Your task to perform on an android device: open app "DuckDuckGo Privacy Browser" Image 0: 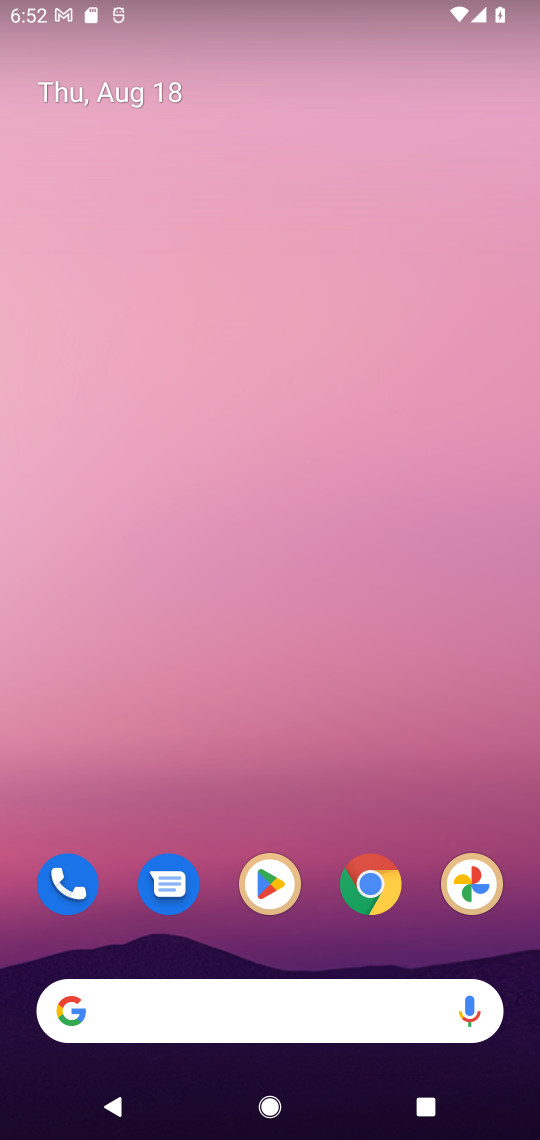
Step 0: drag from (202, 995) to (324, 164)
Your task to perform on an android device: open app "DuckDuckGo Privacy Browser" Image 1: 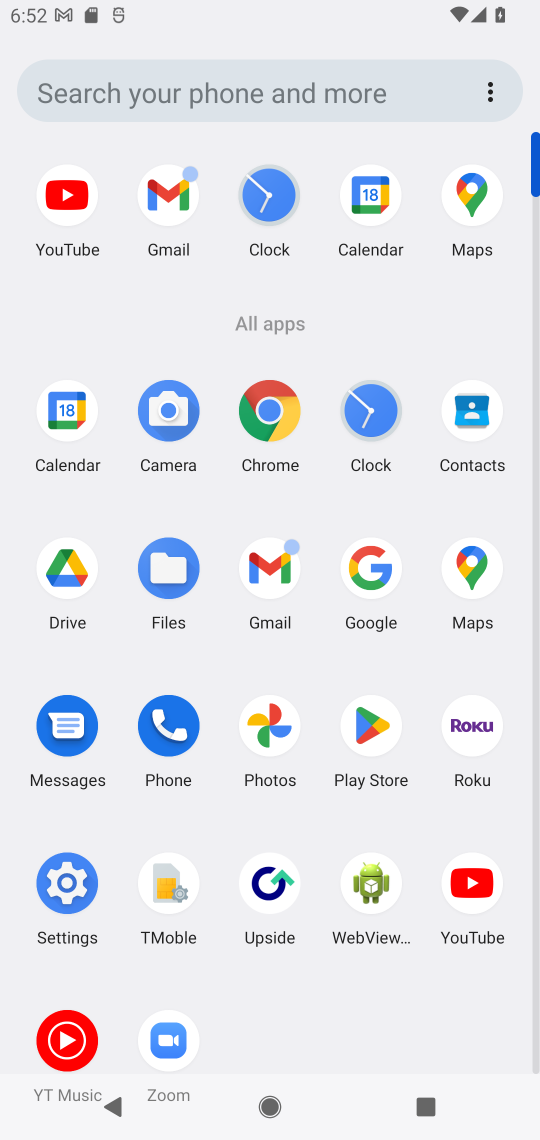
Step 1: click (364, 726)
Your task to perform on an android device: open app "DuckDuckGo Privacy Browser" Image 2: 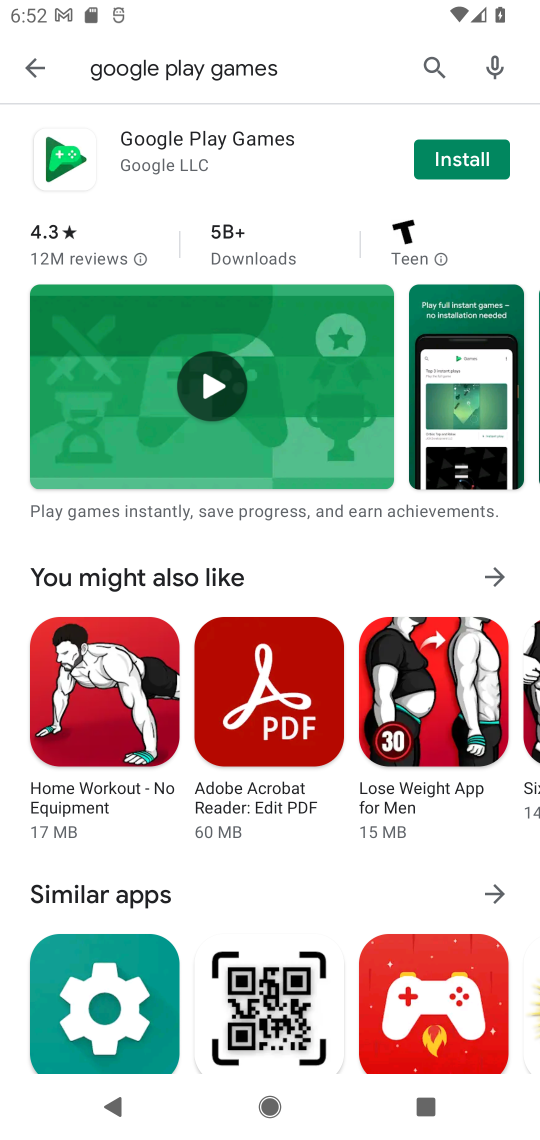
Step 2: press back button
Your task to perform on an android device: open app "DuckDuckGo Privacy Browser" Image 3: 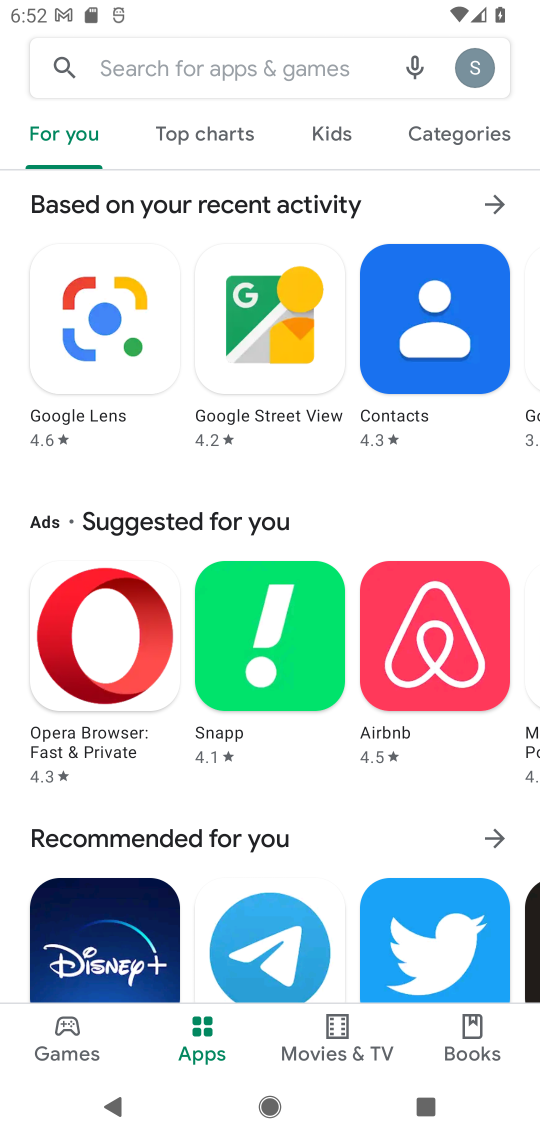
Step 3: click (336, 55)
Your task to perform on an android device: open app "DuckDuckGo Privacy Browser" Image 4: 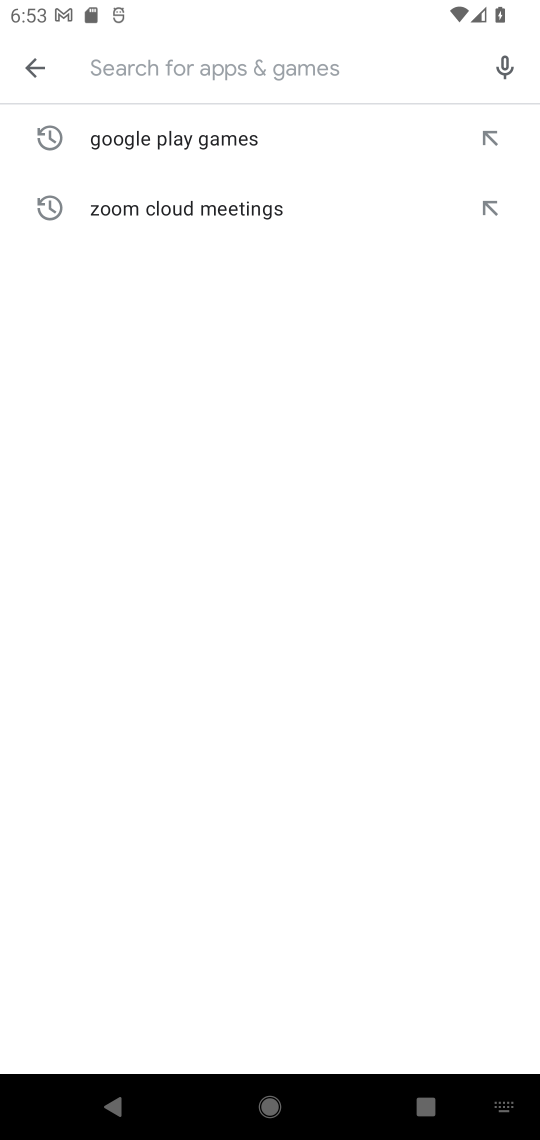
Step 4: type "DuckDuckGo Privacy Browser"
Your task to perform on an android device: open app "DuckDuckGo Privacy Browser" Image 5: 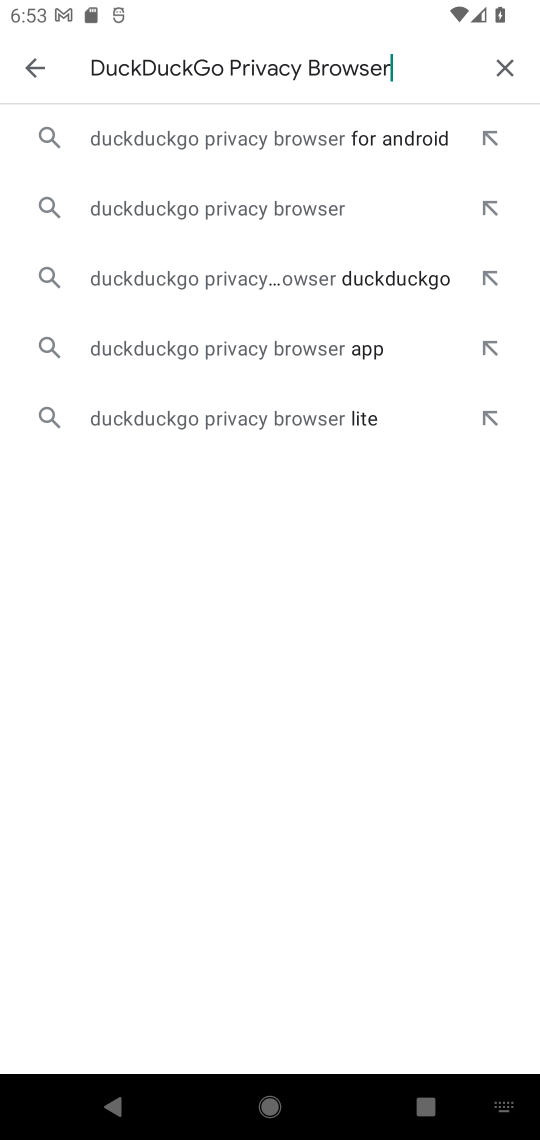
Step 5: click (287, 201)
Your task to perform on an android device: open app "DuckDuckGo Privacy Browser" Image 6: 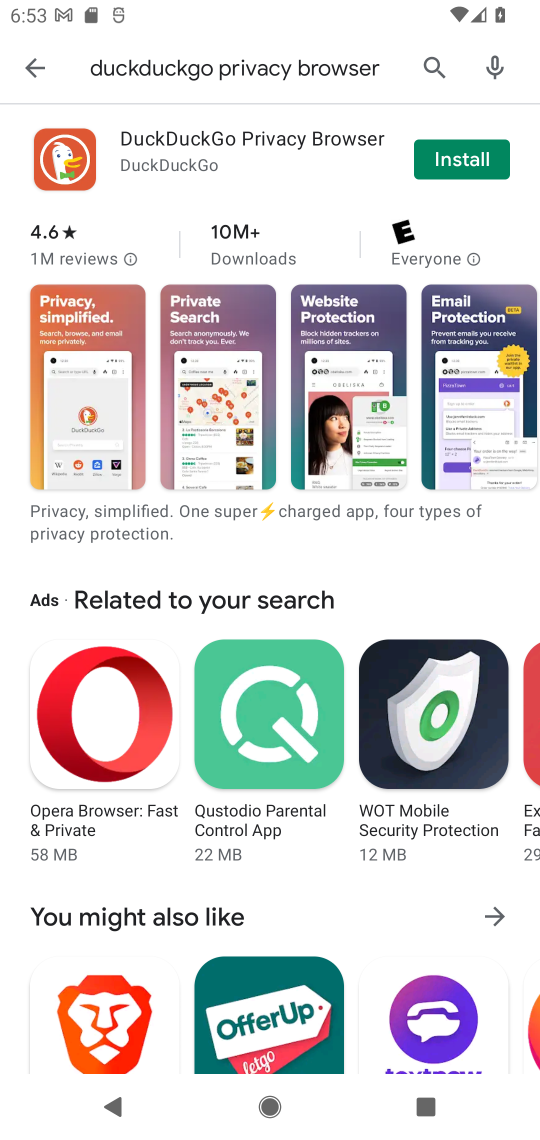
Step 6: task complete